Your task to perform on an android device: delete browsing data in the chrome app Image 0: 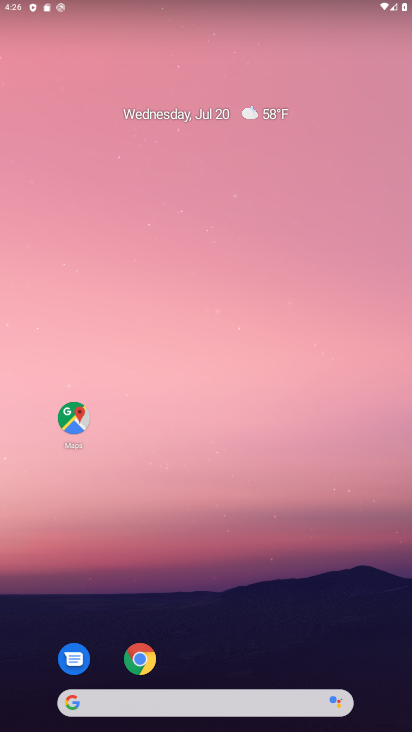
Step 0: drag from (173, 713) to (230, 89)
Your task to perform on an android device: delete browsing data in the chrome app Image 1: 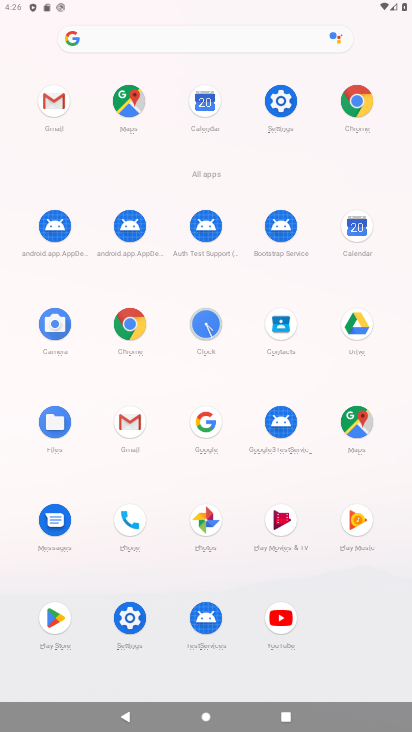
Step 1: click (116, 323)
Your task to perform on an android device: delete browsing data in the chrome app Image 2: 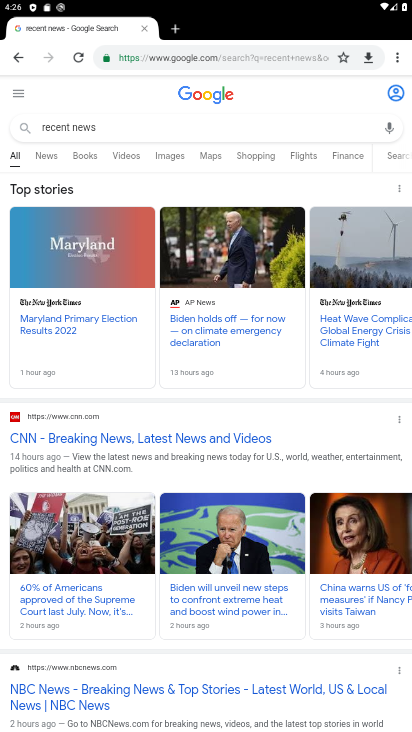
Step 2: click (392, 58)
Your task to perform on an android device: delete browsing data in the chrome app Image 3: 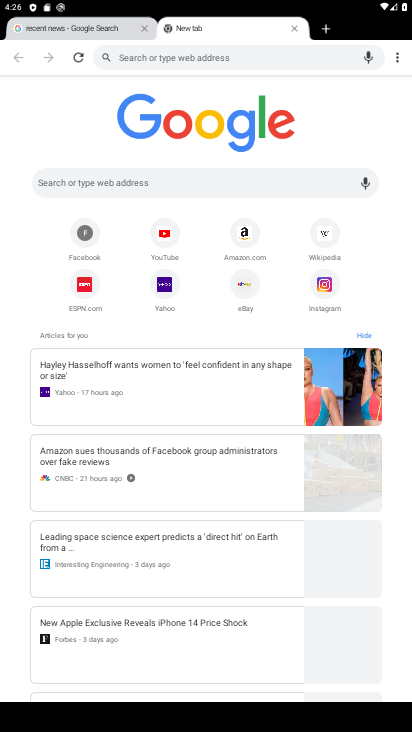
Step 3: drag from (398, 54) to (299, 259)
Your task to perform on an android device: delete browsing data in the chrome app Image 4: 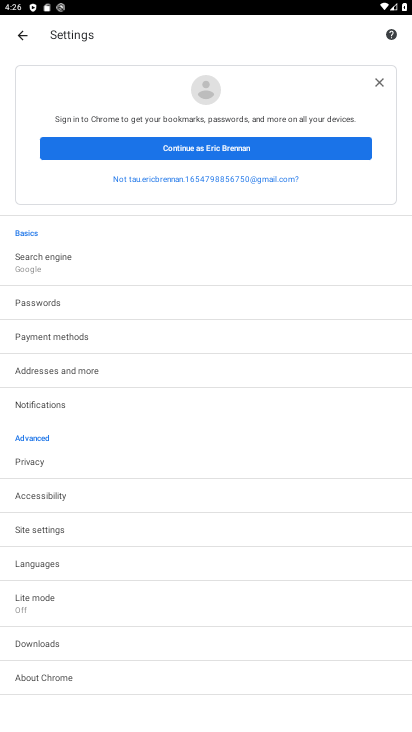
Step 4: click (60, 461)
Your task to perform on an android device: delete browsing data in the chrome app Image 5: 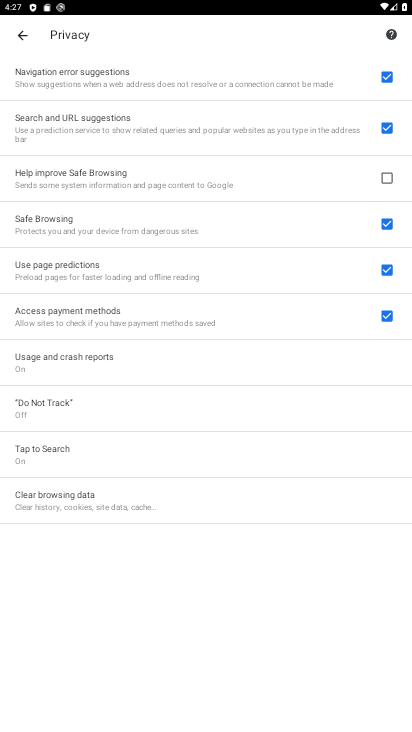
Step 5: click (136, 503)
Your task to perform on an android device: delete browsing data in the chrome app Image 6: 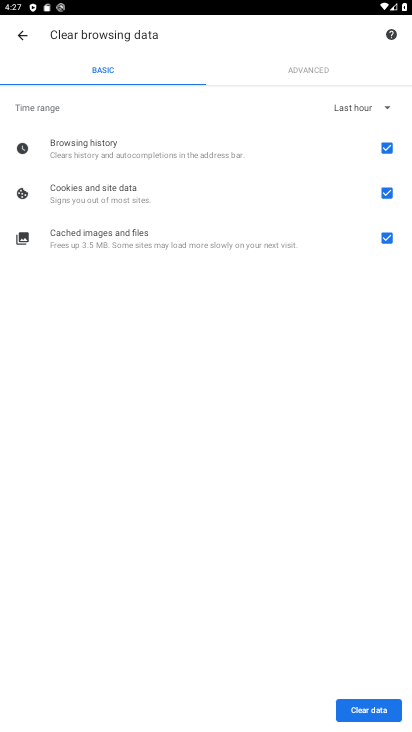
Step 6: click (381, 708)
Your task to perform on an android device: delete browsing data in the chrome app Image 7: 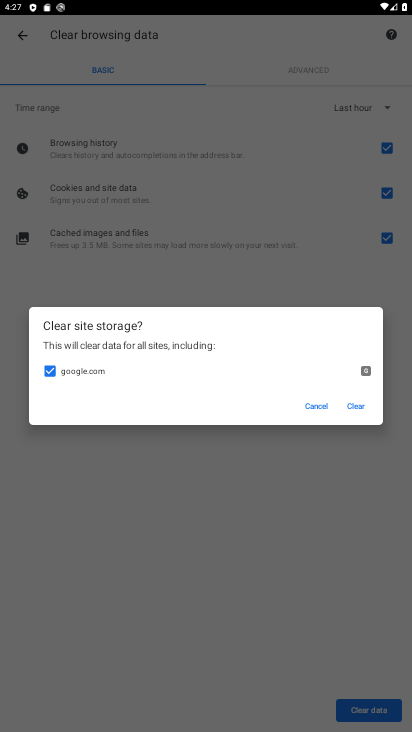
Step 7: click (358, 405)
Your task to perform on an android device: delete browsing data in the chrome app Image 8: 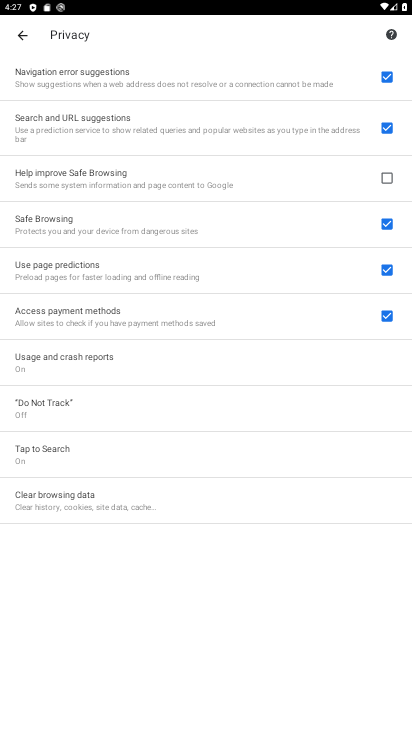
Step 8: task complete